Your task to perform on an android device: set an alarm Image 0: 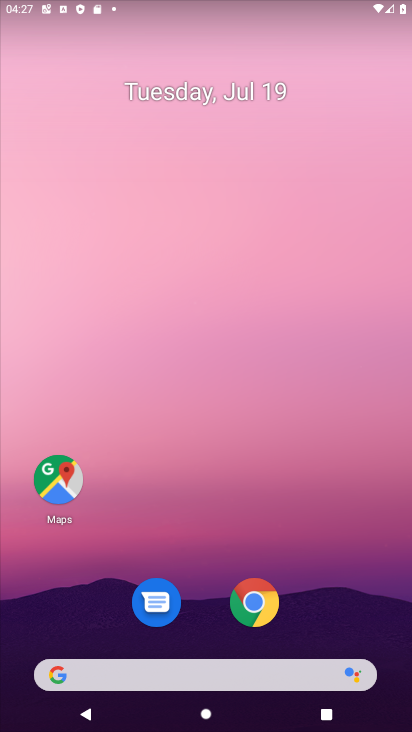
Step 0: drag from (231, 517) to (194, 195)
Your task to perform on an android device: set an alarm Image 1: 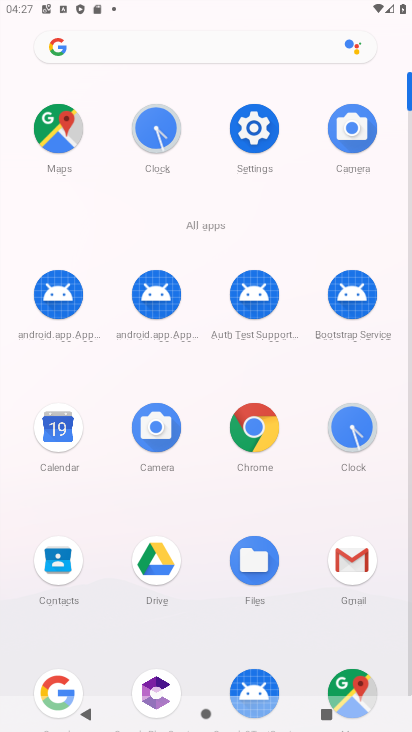
Step 1: click (165, 118)
Your task to perform on an android device: set an alarm Image 2: 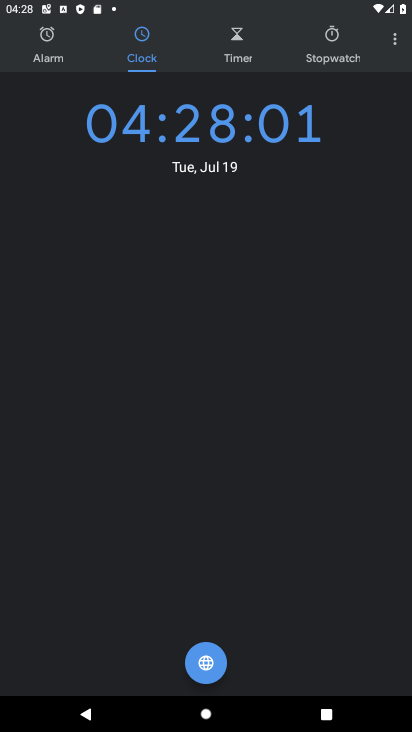
Step 2: click (59, 28)
Your task to perform on an android device: set an alarm Image 3: 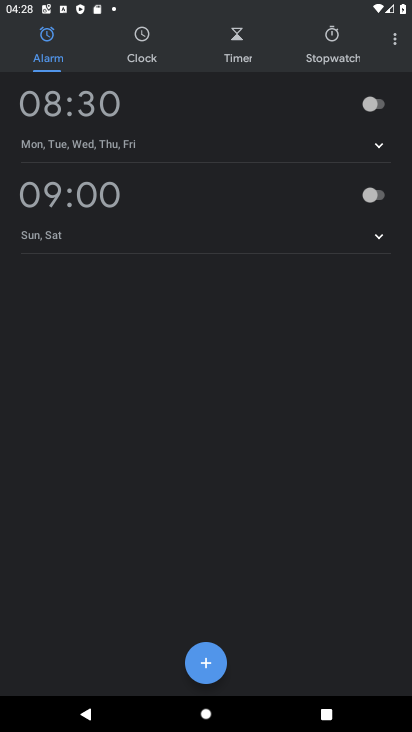
Step 3: click (376, 205)
Your task to perform on an android device: set an alarm Image 4: 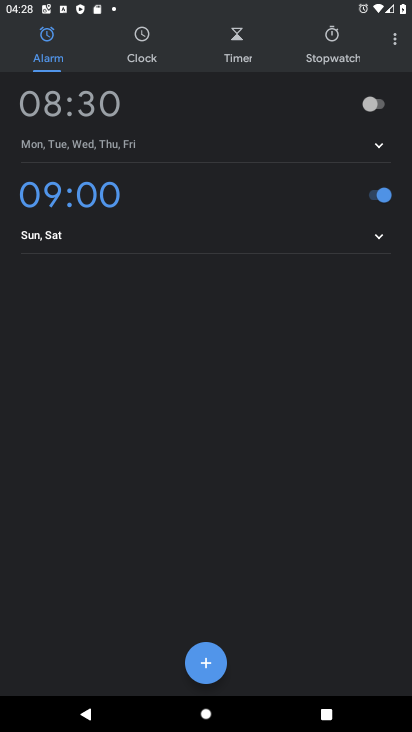
Step 4: task complete